Your task to perform on an android device: Search for vegetarian restaurants on Maps Image 0: 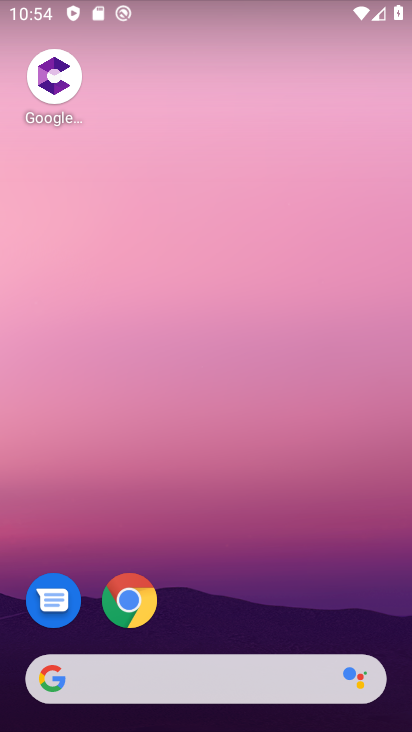
Step 0: click (211, 106)
Your task to perform on an android device: Search for vegetarian restaurants on Maps Image 1: 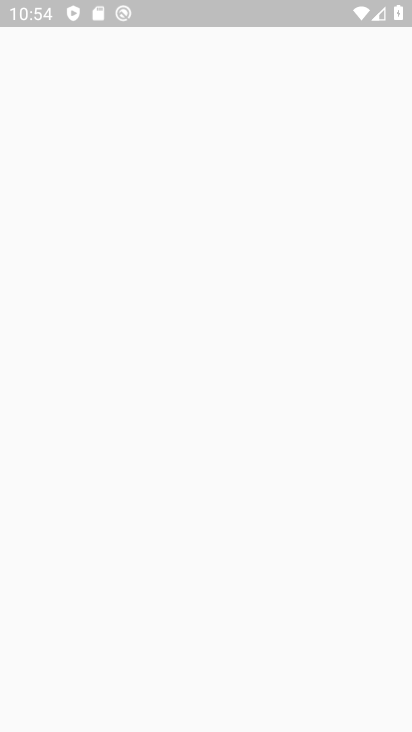
Step 1: press home button
Your task to perform on an android device: Search for vegetarian restaurants on Maps Image 2: 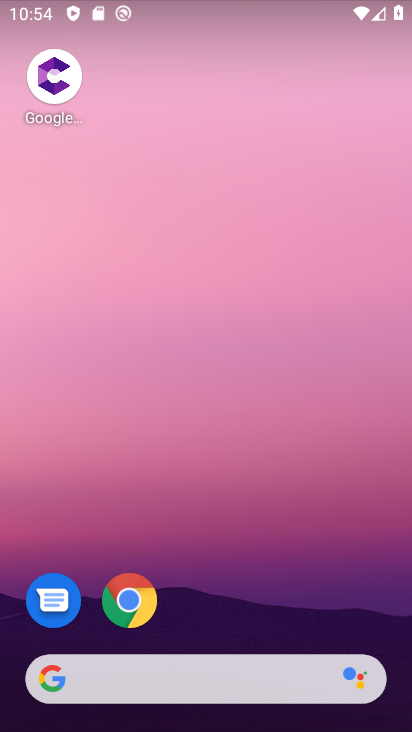
Step 2: drag from (275, 552) to (244, 136)
Your task to perform on an android device: Search for vegetarian restaurants on Maps Image 3: 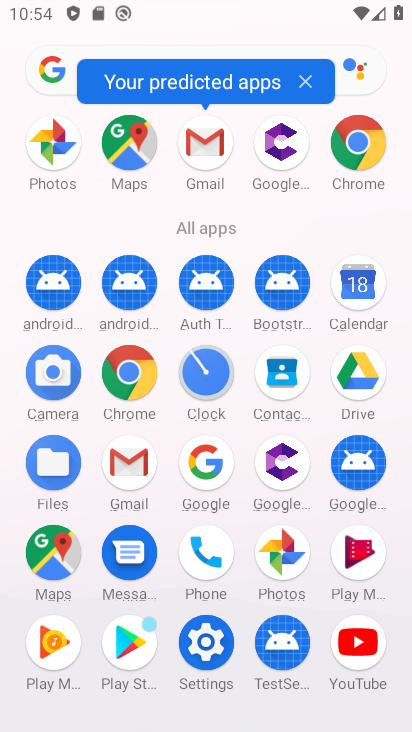
Step 3: click (136, 153)
Your task to perform on an android device: Search for vegetarian restaurants on Maps Image 4: 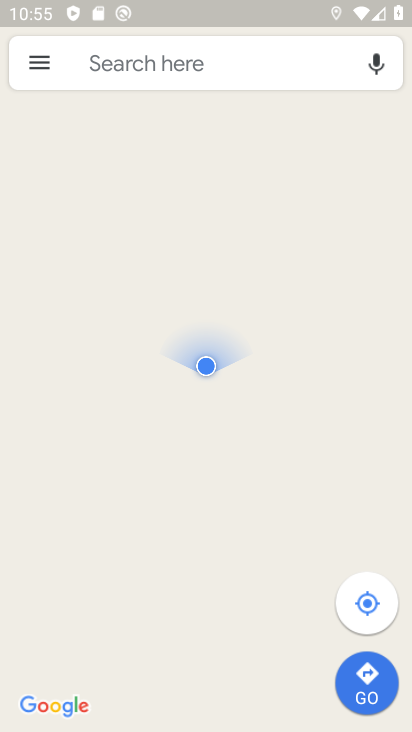
Step 4: click (229, 66)
Your task to perform on an android device: Search for vegetarian restaurants on Maps Image 5: 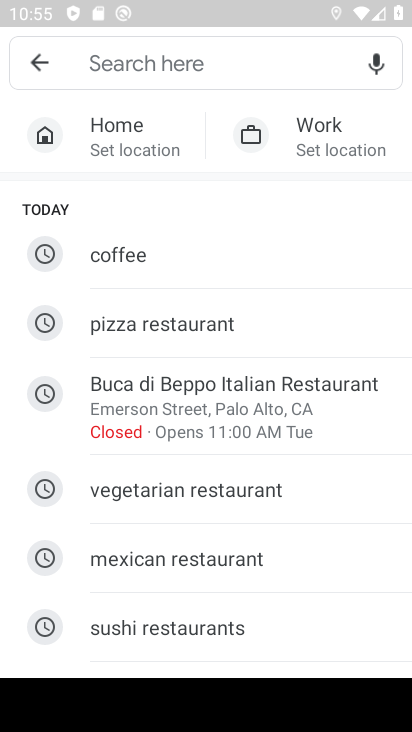
Step 5: type "vegetarian restaurants"
Your task to perform on an android device: Search for vegetarian restaurants on Maps Image 6: 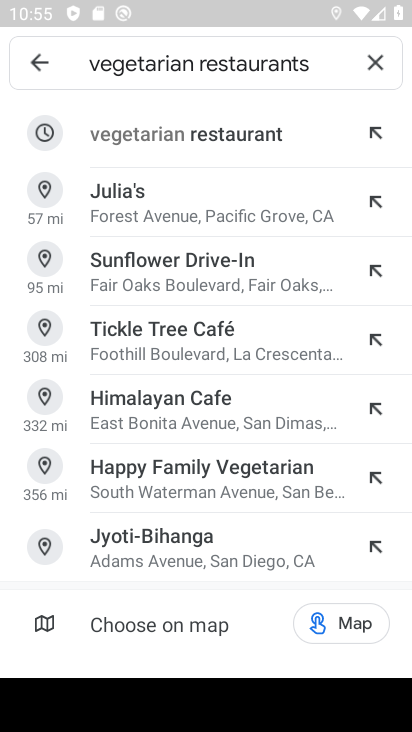
Step 6: click (185, 139)
Your task to perform on an android device: Search for vegetarian restaurants on Maps Image 7: 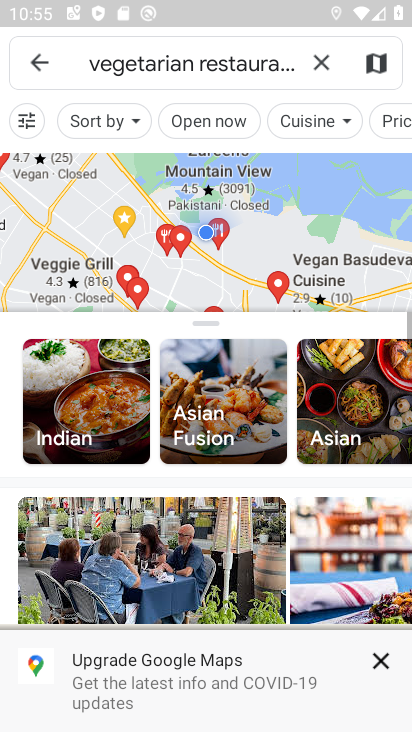
Step 7: task complete